Your task to perform on an android device: toggle notifications settings in the gmail app Image 0: 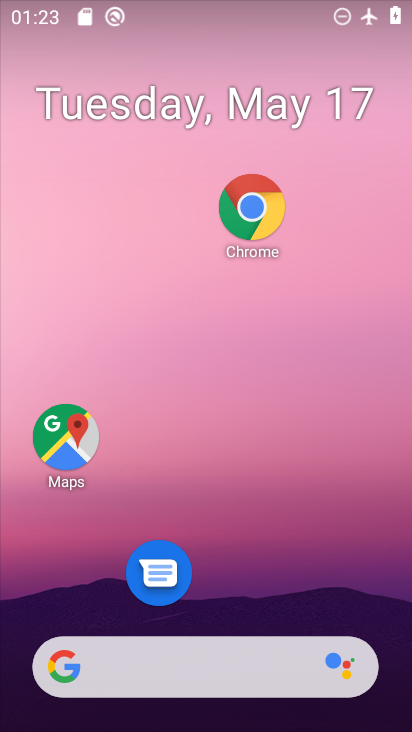
Step 0: drag from (105, 670) to (260, 134)
Your task to perform on an android device: toggle notifications settings in the gmail app Image 1: 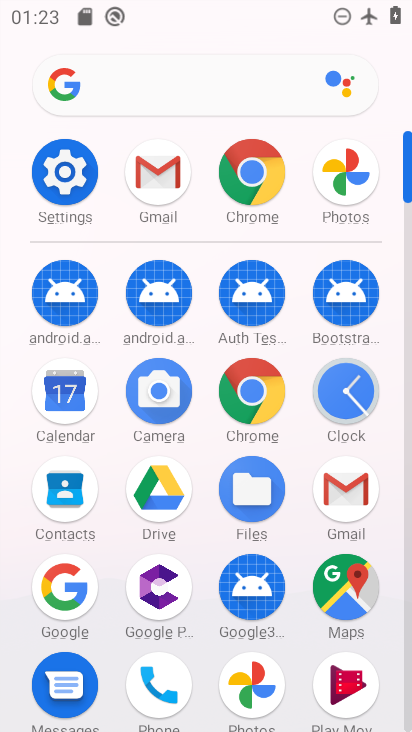
Step 1: click (344, 492)
Your task to perform on an android device: toggle notifications settings in the gmail app Image 2: 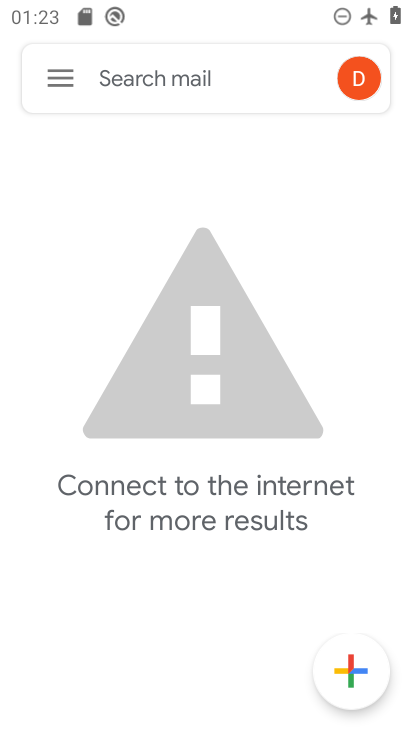
Step 2: click (63, 84)
Your task to perform on an android device: toggle notifications settings in the gmail app Image 3: 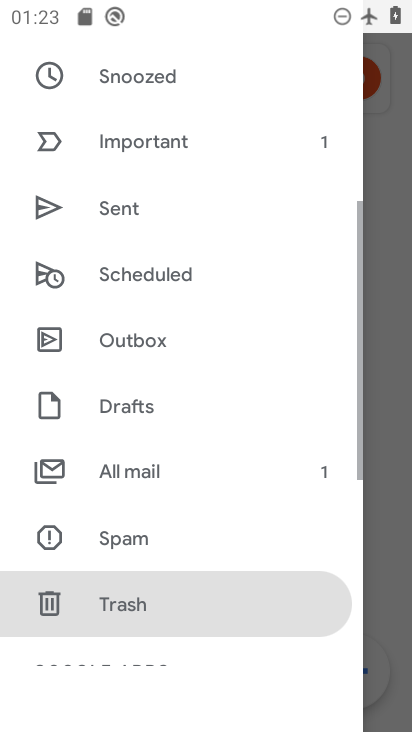
Step 3: drag from (211, 585) to (186, 86)
Your task to perform on an android device: toggle notifications settings in the gmail app Image 4: 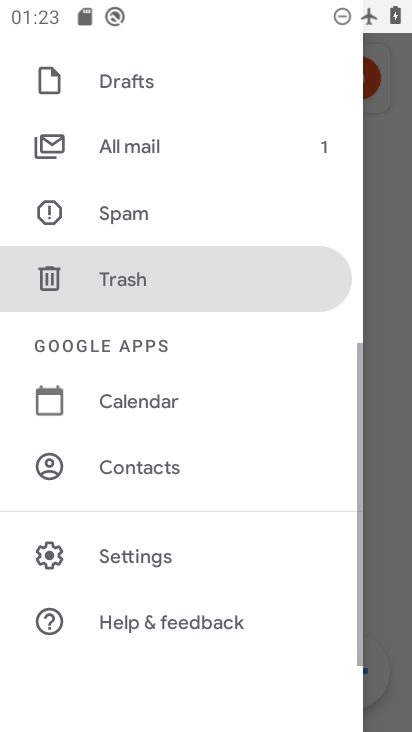
Step 4: click (175, 566)
Your task to perform on an android device: toggle notifications settings in the gmail app Image 5: 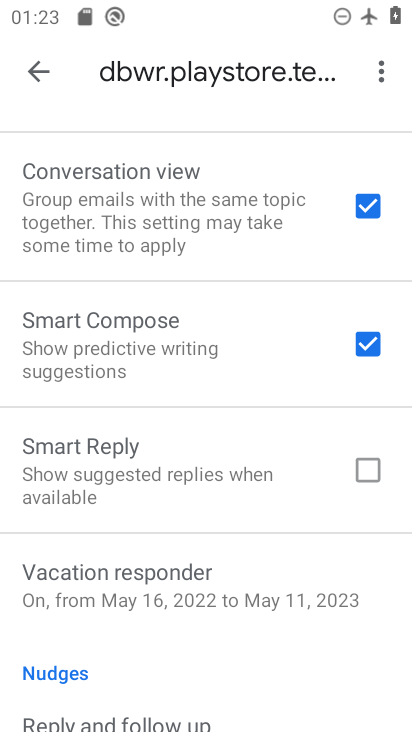
Step 5: drag from (156, 172) to (225, 643)
Your task to perform on an android device: toggle notifications settings in the gmail app Image 6: 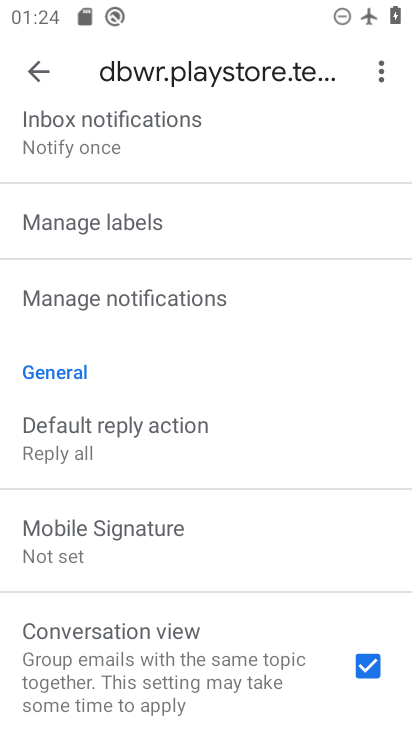
Step 6: click (117, 288)
Your task to perform on an android device: toggle notifications settings in the gmail app Image 7: 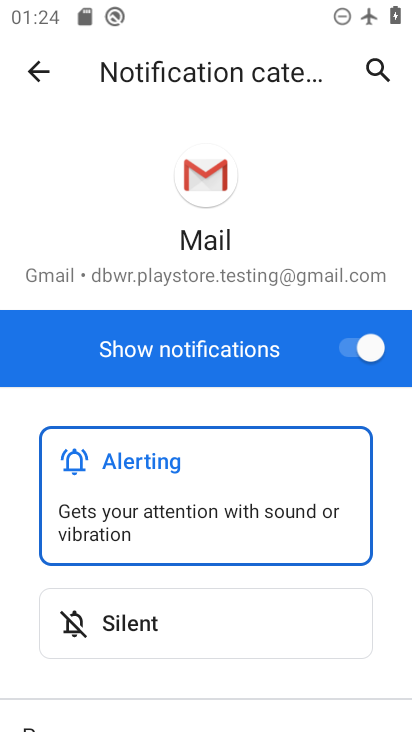
Step 7: click (346, 349)
Your task to perform on an android device: toggle notifications settings in the gmail app Image 8: 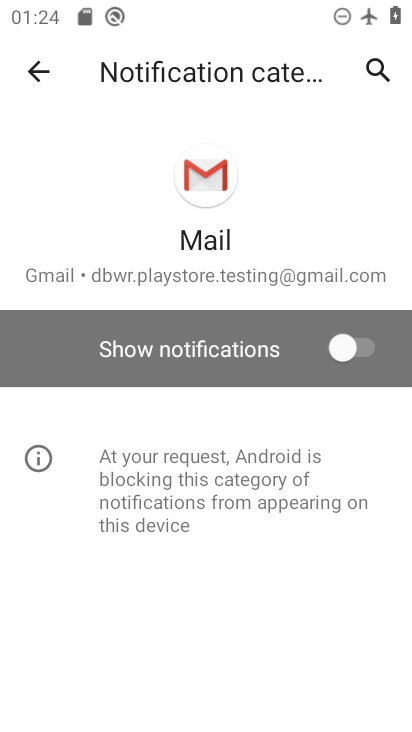
Step 8: task complete